Your task to perform on an android device: delete the emails in spam in the gmail app Image 0: 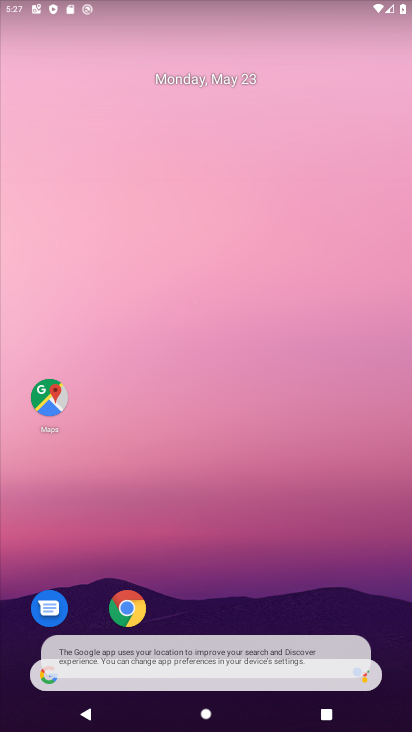
Step 0: drag from (207, 633) to (203, 5)
Your task to perform on an android device: delete the emails in spam in the gmail app Image 1: 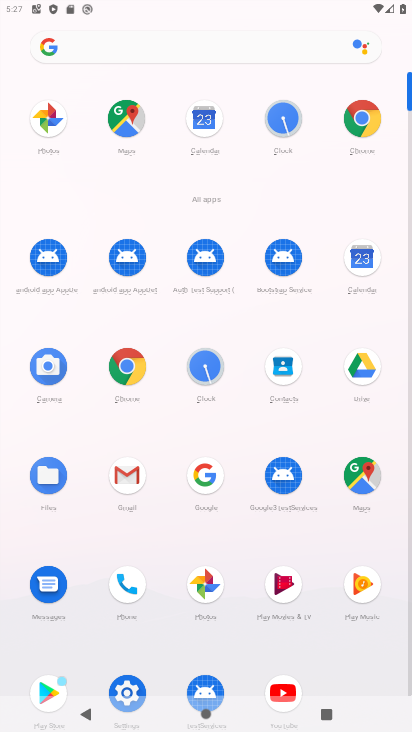
Step 1: click (113, 475)
Your task to perform on an android device: delete the emails in spam in the gmail app Image 2: 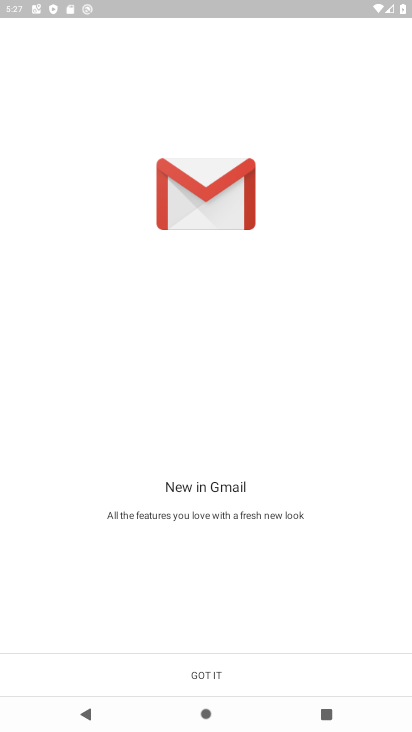
Step 2: click (236, 668)
Your task to perform on an android device: delete the emails in spam in the gmail app Image 3: 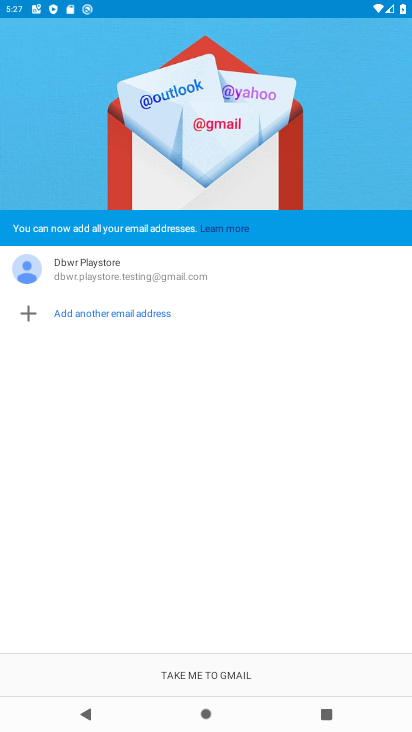
Step 3: click (207, 653)
Your task to perform on an android device: delete the emails in spam in the gmail app Image 4: 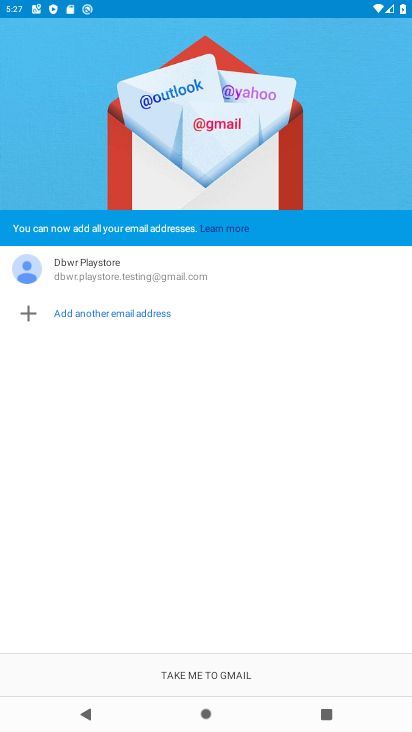
Step 4: click (205, 678)
Your task to perform on an android device: delete the emails in spam in the gmail app Image 5: 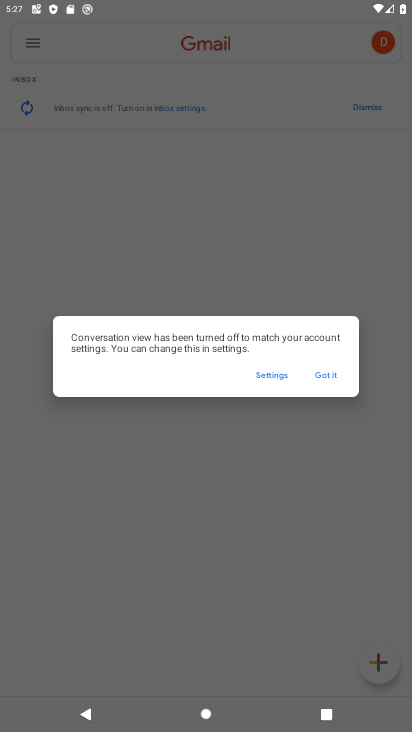
Step 5: click (324, 369)
Your task to perform on an android device: delete the emails in spam in the gmail app Image 6: 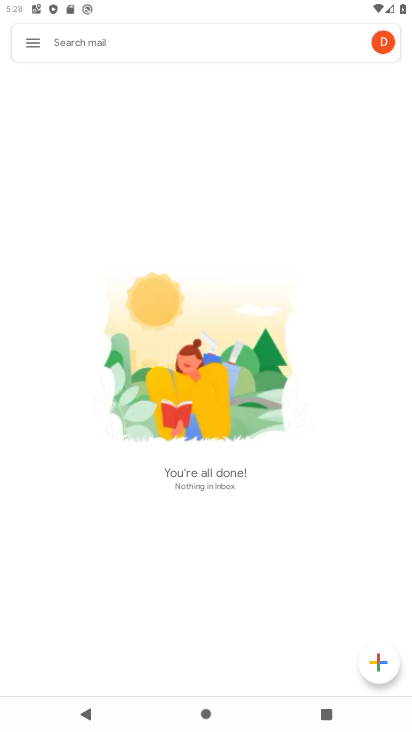
Step 6: click (35, 44)
Your task to perform on an android device: delete the emails in spam in the gmail app Image 7: 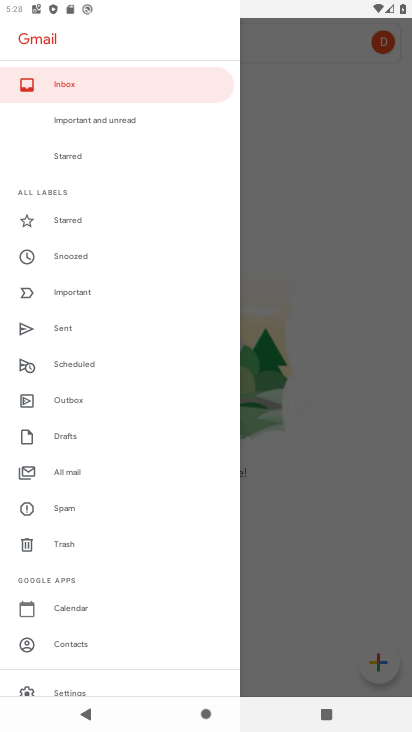
Step 7: click (77, 468)
Your task to perform on an android device: delete the emails in spam in the gmail app Image 8: 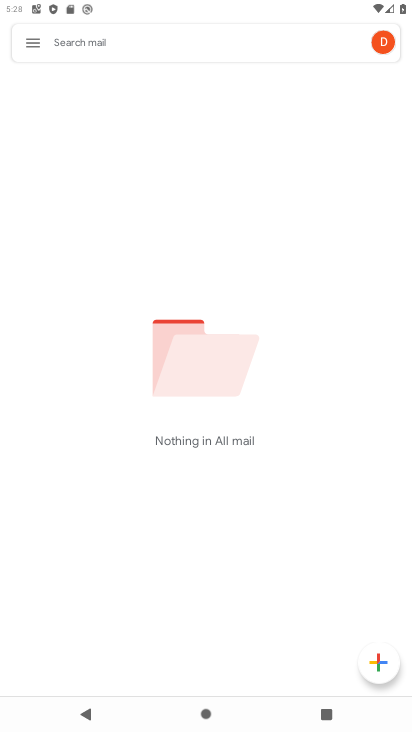
Step 8: click (42, 40)
Your task to perform on an android device: delete the emails in spam in the gmail app Image 9: 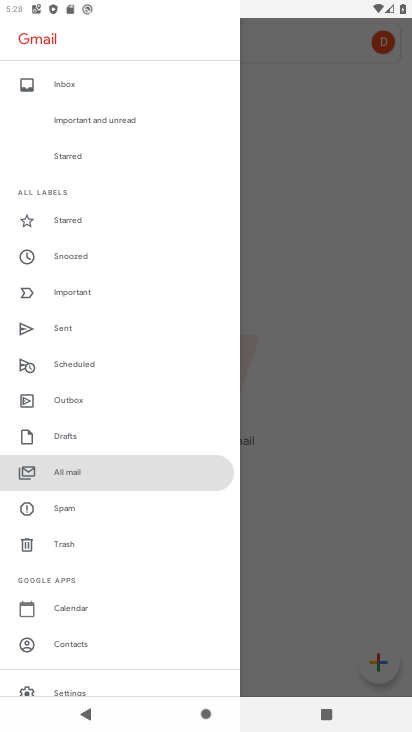
Step 9: click (72, 504)
Your task to perform on an android device: delete the emails in spam in the gmail app Image 10: 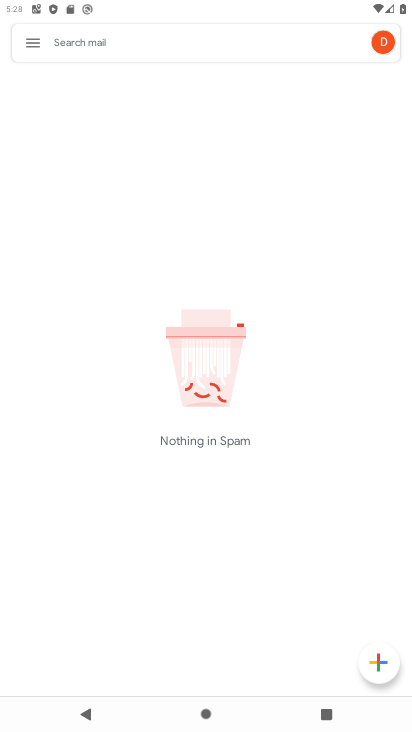
Step 10: task complete